Your task to perform on an android device: Set the phone to "Do not disturb". Image 0: 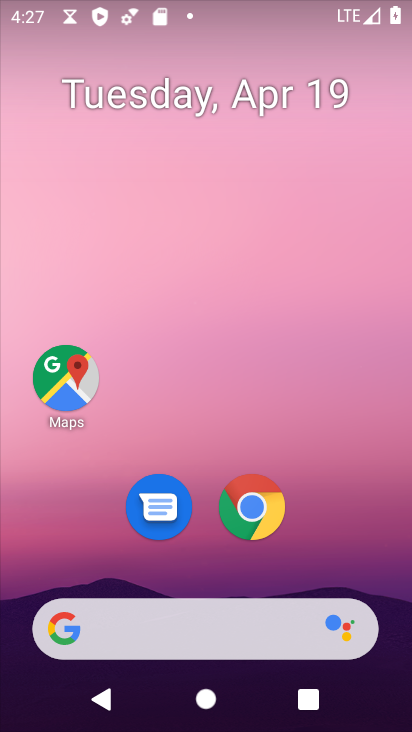
Step 0: drag from (317, 557) to (328, 27)
Your task to perform on an android device: Set the phone to "Do not disturb". Image 1: 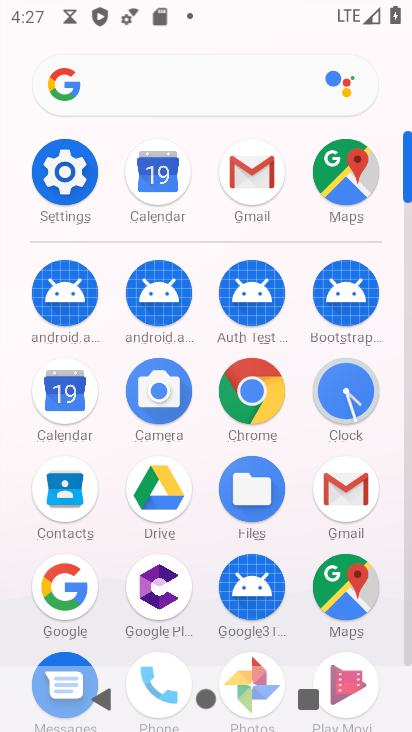
Step 1: click (60, 173)
Your task to perform on an android device: Set the phone to "Do not disturb". Image 2: 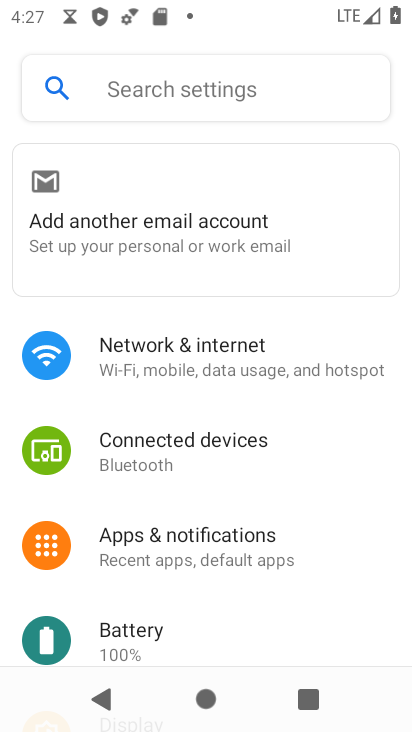
Step 2: drag from (198, 551) to (206, 392)
Your task to perform on an android device: Set the phone to "Do not disturb". Image 3: 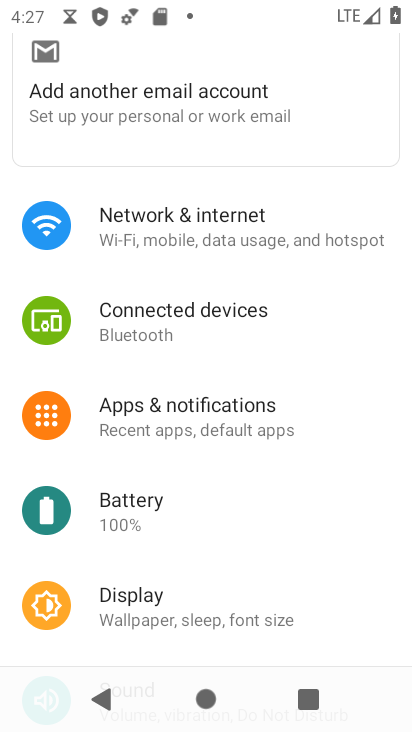
Step 3: drag from (232, 598) to (228, 422)
Your task to perform on an android device: Set the phone to "Do not disturb". Image 4: 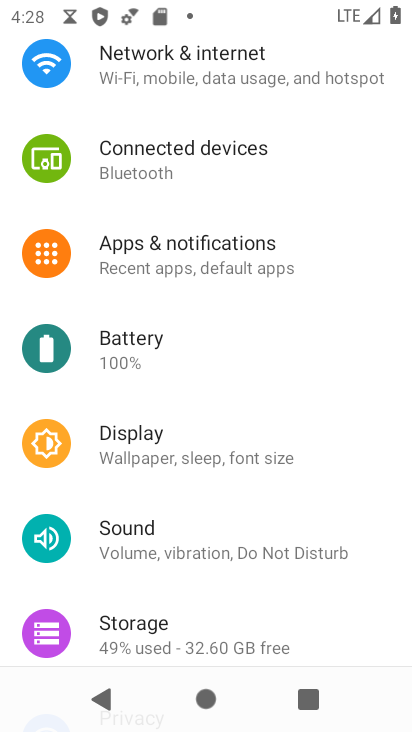
Step 4: drag from (176, 527) to (174, 355)
Your task to perform on an android device: Set the phone to "Do not disturb". Image 5: 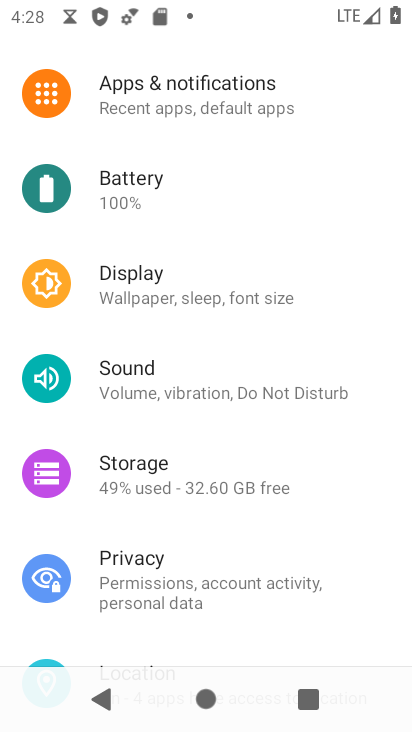
Step 5: click (200, 395)
Your task to perform on an android device: Set the phone to "Do not disturb". Image 6: 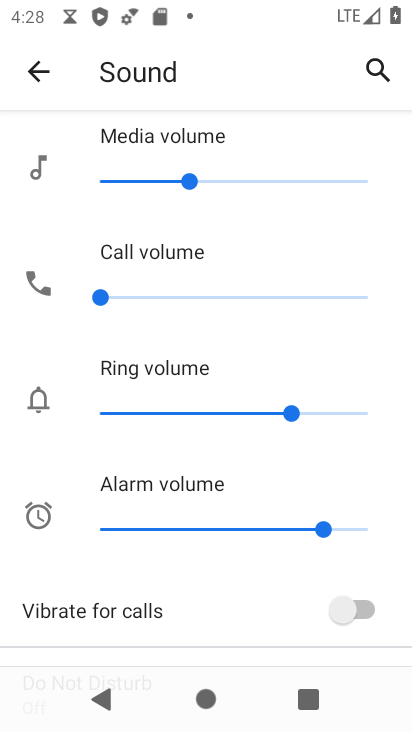
Step 6: drag from (189, 604) to (173, 458)
Your task to perform on an android device: Set the phone to "Do not disturb". Image 7: 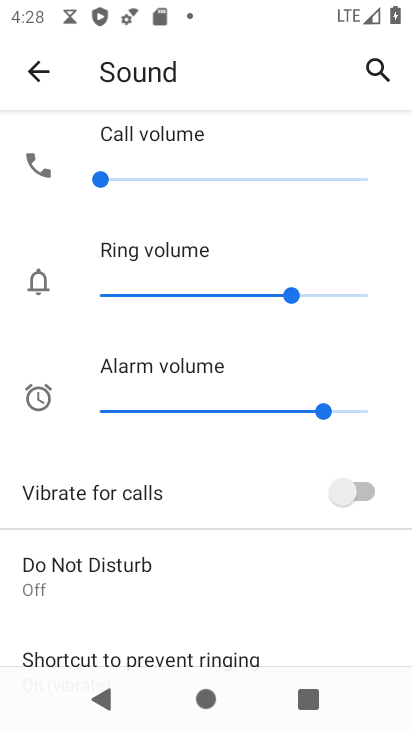
Step 7: click (154, 587)
Your task to perform on an android device: Set the phone to "Do not disturb". Image 8: 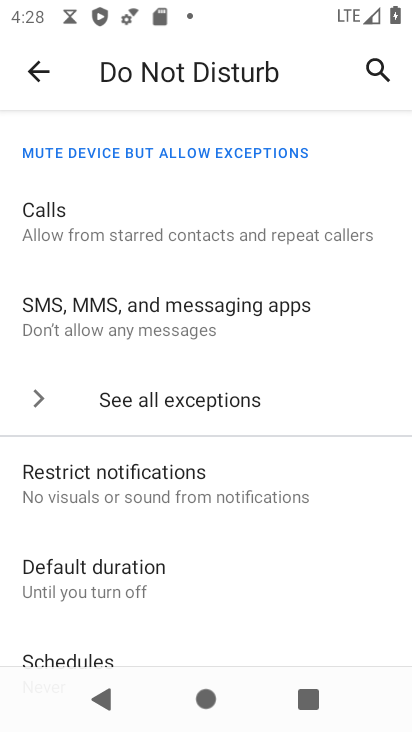
Step 8: drag from (190, 591) to (197, 379)
Your task to perform on an android device: Set the phone to "Do not disturb". Image 9: 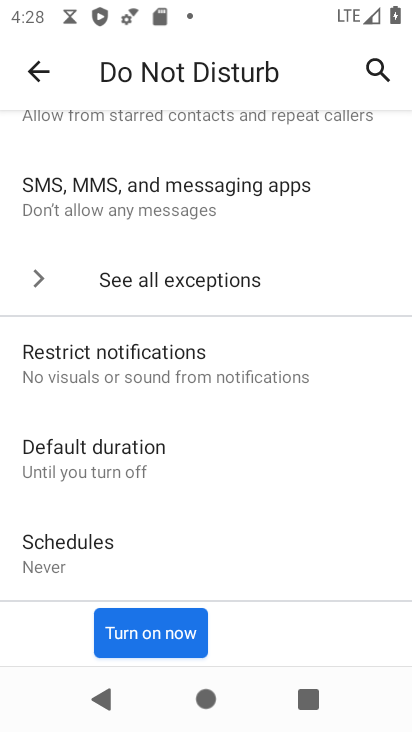
Step 9: click (152, 640)
Your task to perform on an android device: Set the phone to "Do not disturb". Image 10: 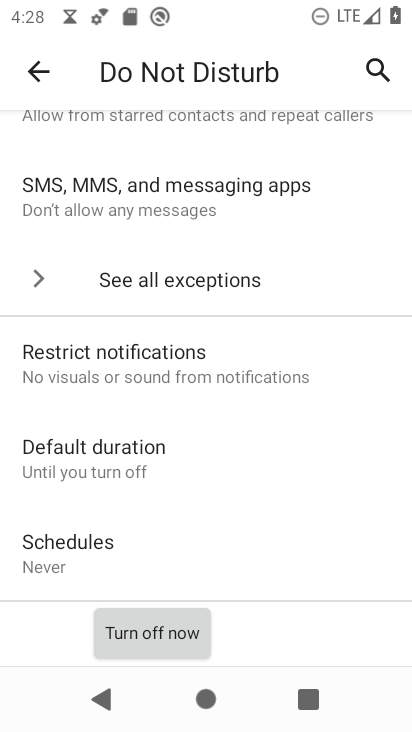
Step 10: task complete